Your task to perform on an android device: turn off location history Image 0: 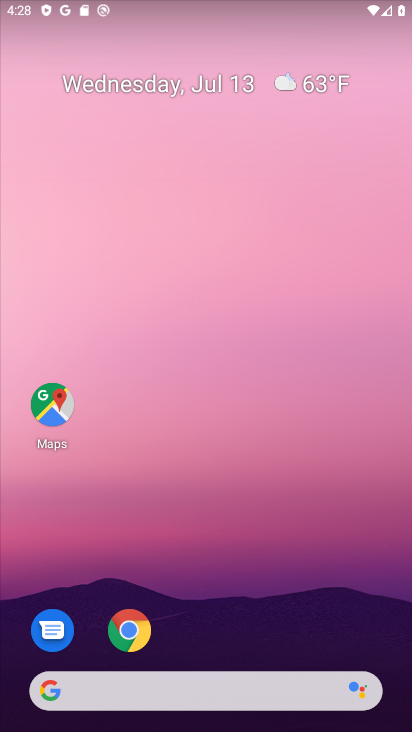
Step 0: drag from (218, 604) to (246, 95)
Your task to perform on an android device: turn off location history Image 1: 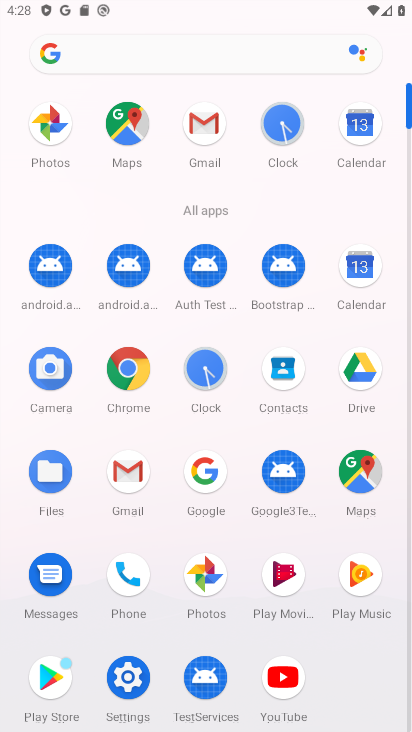
Step 1: click (353, 464)
Your task to perform on an android device: turn off location history Image 2: 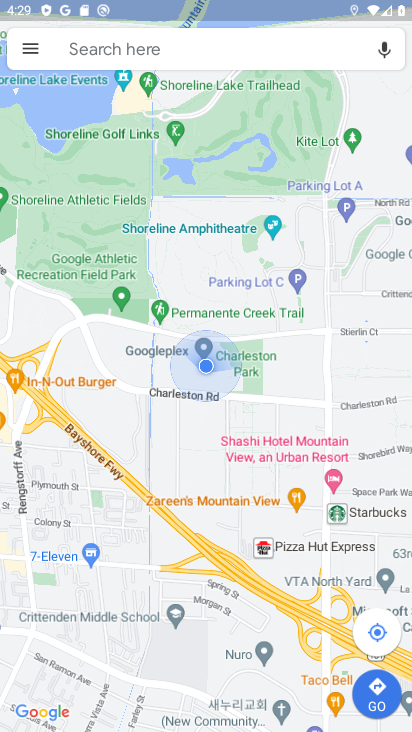
Step 2: click (35, 46)
Your task to perform on an android device: turn off location history Image 3: 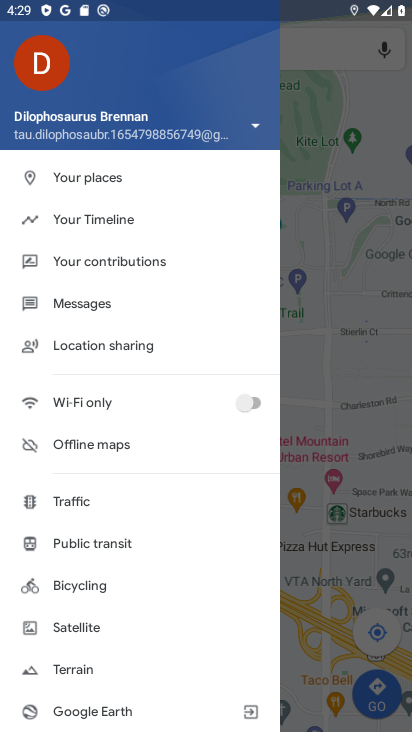
Step 3: click (121, 220)
Your task to perform on an android device: turn off location history Image 4: 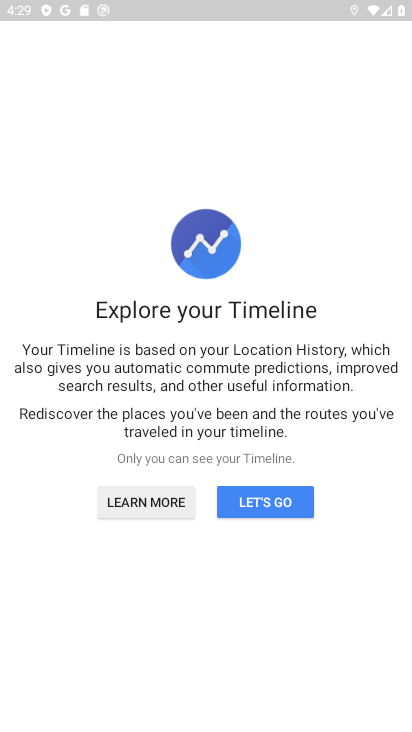
Step 4: click (263, 495)
Your task to perform on an android device: turn off location history Image 5: 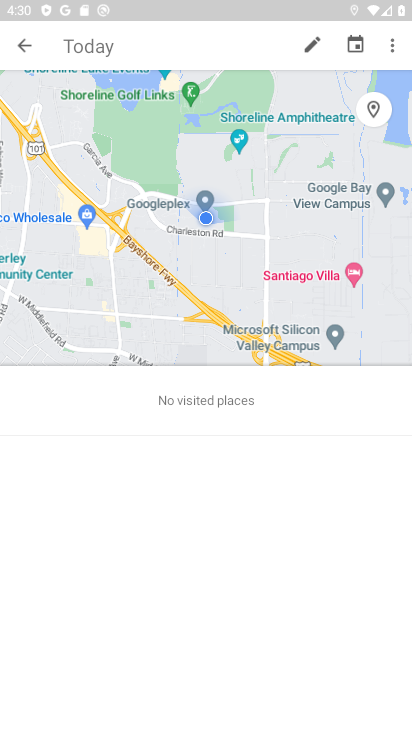
Step 5: click (387, 52)
Your task to perform on an android device: turn off location history Image 6: 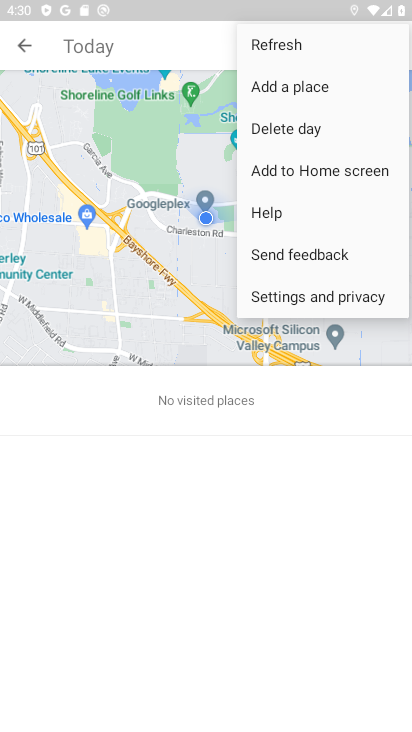
Step 6: click (268, 296)
Your task to perform on an android device: turn off location history Image 7: 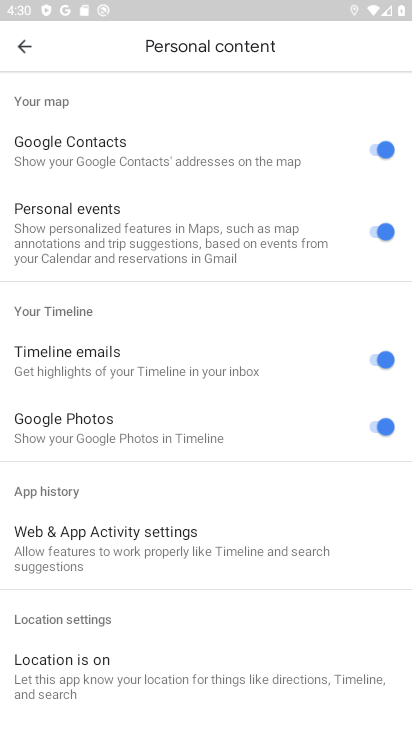
Step 7: drag from (258, 638) to (254, 284)
Your task to perform on an android device: turn off location history Image 8: 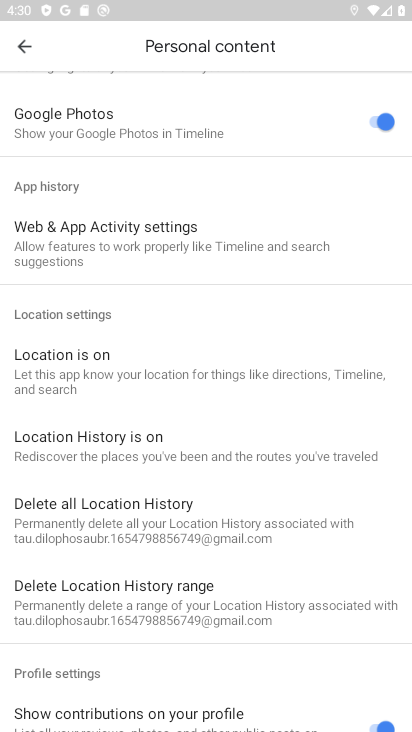
Step 8: click (113, 432)
Your task to perform on an android device: turn off location history Image 9: 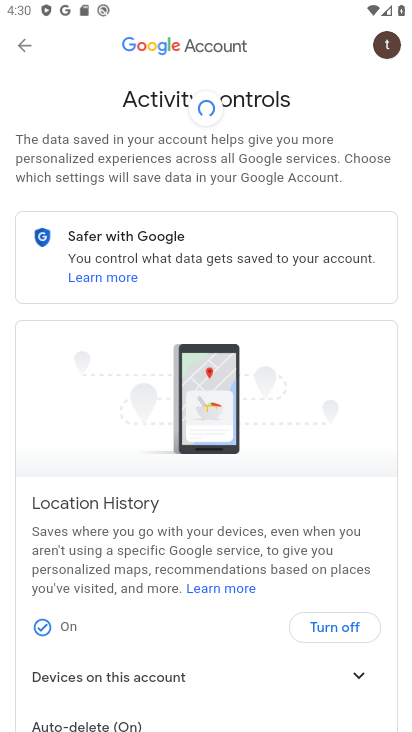
Step 9: click (343, 621)
Your task to perform on an android device: turn off location history Image 10: 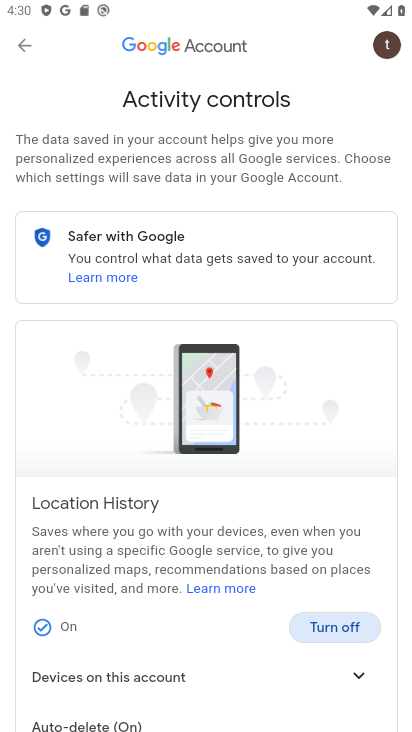
Step 10: click (346, 625)
Your task to perform on an android device: turn off location history Image 11: 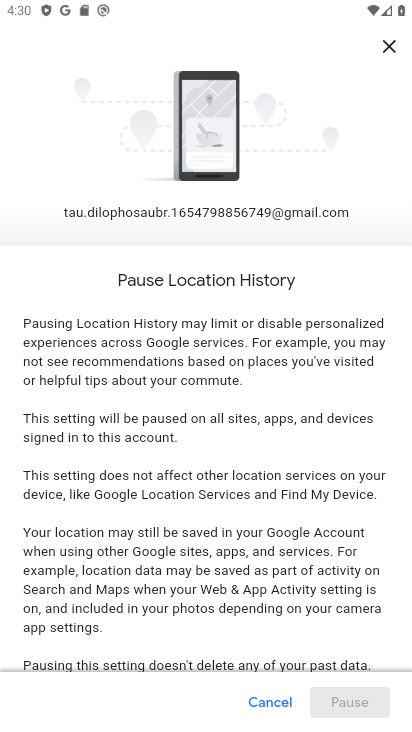
Step 11: drag from (334, 630) to (342, 150)
Your task to perform on an android device: turn off location history Image 12: 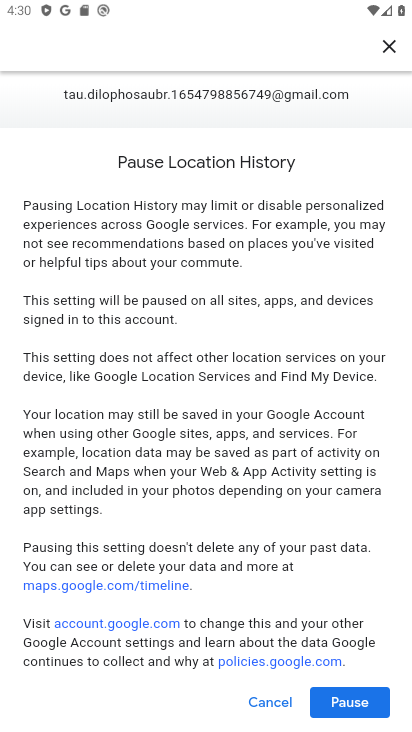
Step 12: click (359, 693)
Your task to perform on an android device: turn off location history Image 13: 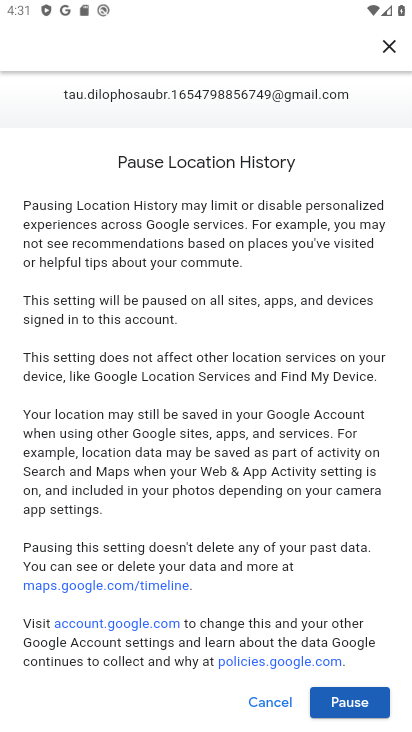
Step 13: click (368, 703)
Your task to perform on an android device: turn off location history Image 14: 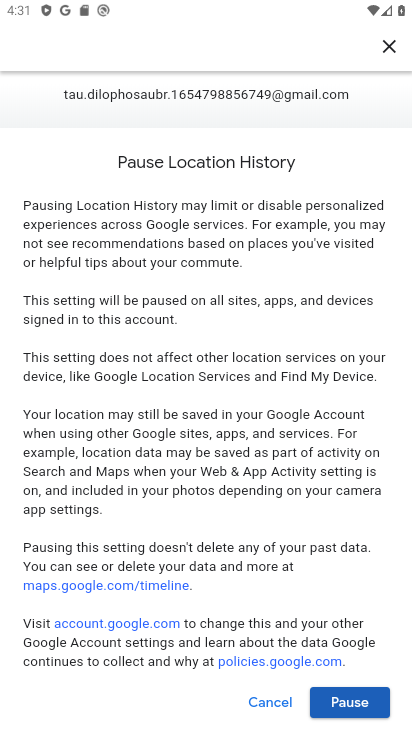
Step 14: click (356, 703)
Your task to perform on an android device: turn off location history Image 15: 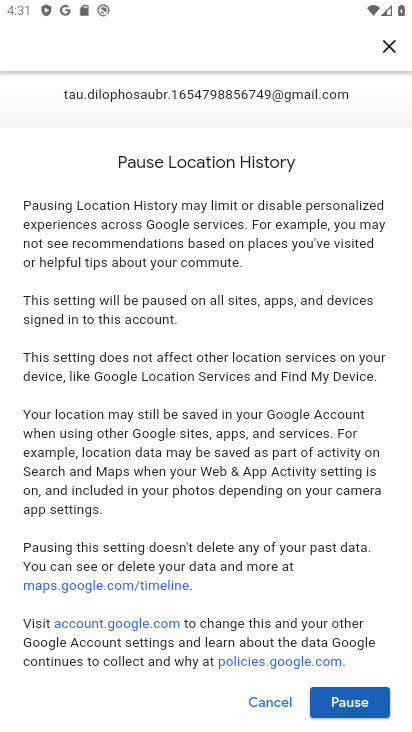
Step 15: click (373, 703)
Your task to perform on an android device: turn off location history Image 16: 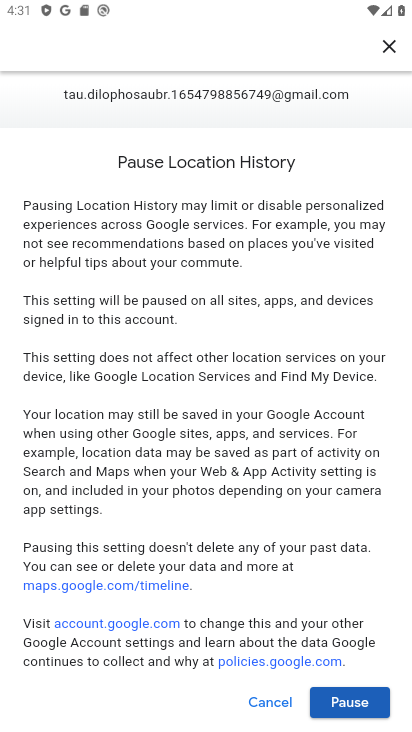
Step 16: click (365, 703)
Your task to perform on an android device: turn off location history Image 17: 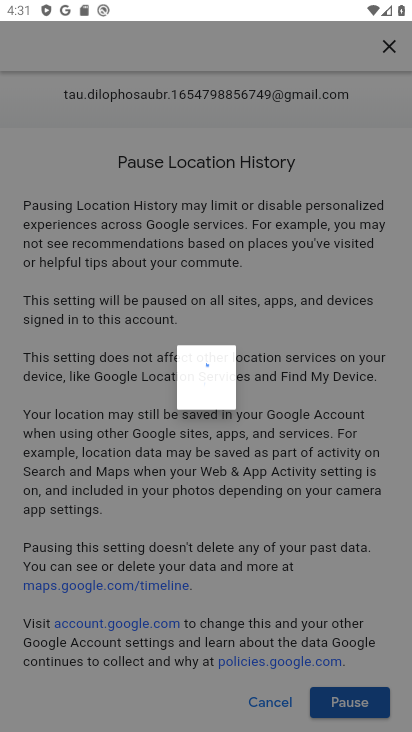
Step 17: click (341, 703)
Your task to perform on an android device: turn off location history Image 18: 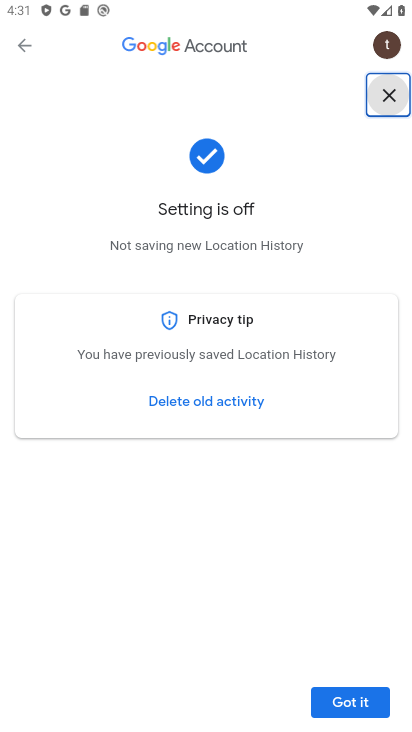
Step 18: click (371, 695)
Your task to perform on an android device: turn off location history Image 19: 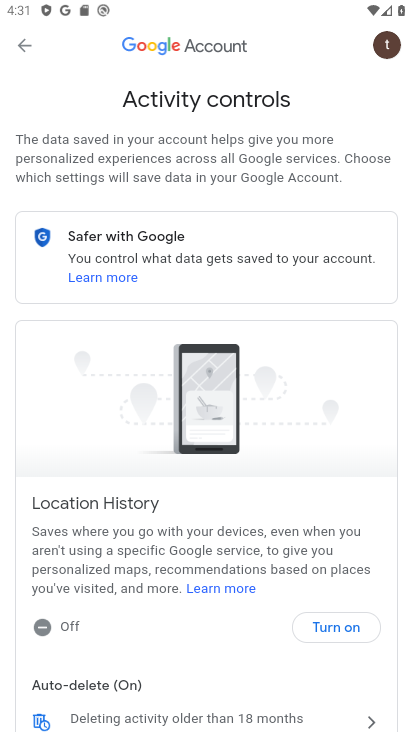
Step 19: task complete